Your task to perform on an android device: turn on data saver in the chrome app Image 0: 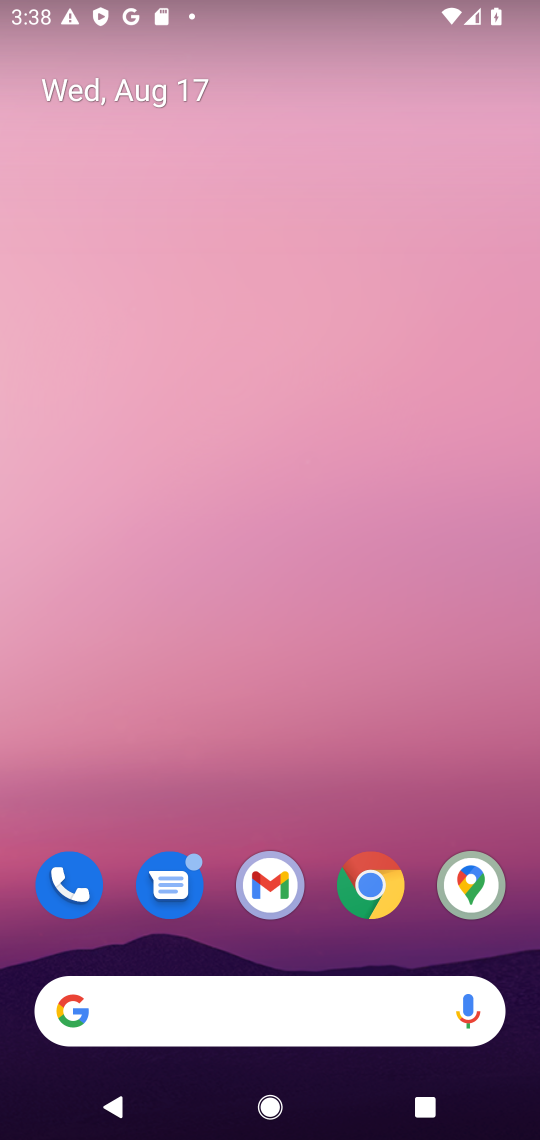
Step 0: click (372, 884)
Your task to perform on an android device: turn on data saver in the chrome app Image 1: 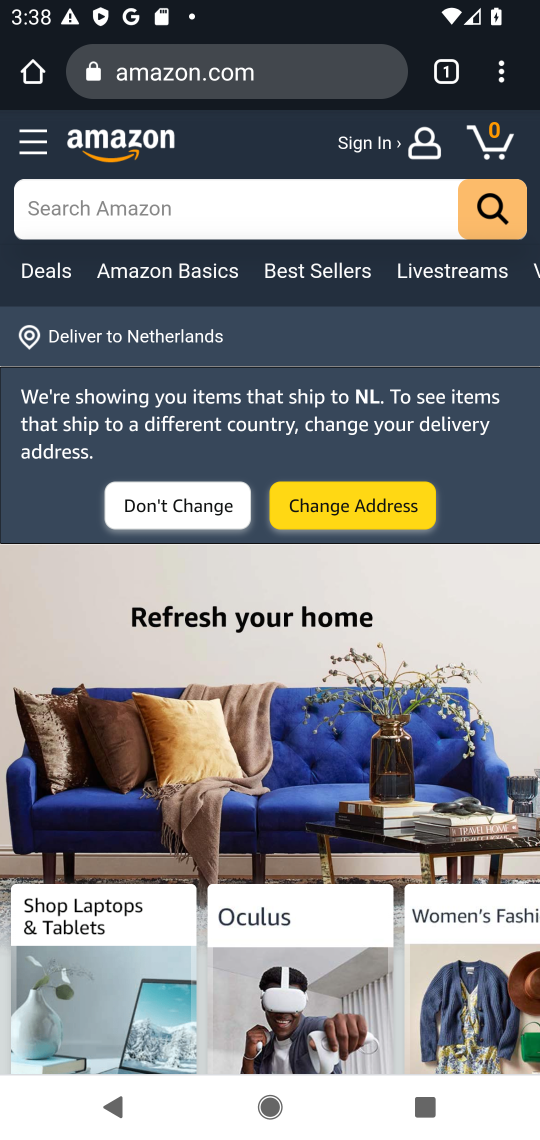
Step 1: click (524, 75)
Your task to perform on an android device: turn on data saver in the chrome app Image 2: 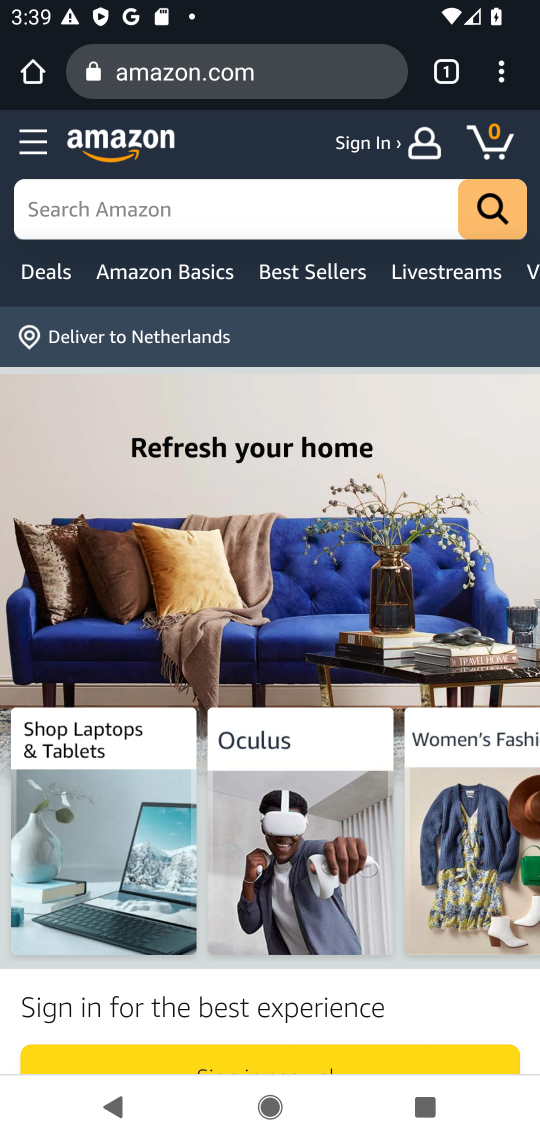
Step 2: drag from (524, 75) to (338, 917)
Your task to perform on an android device: turn on data saver in the chrome app Image 3: 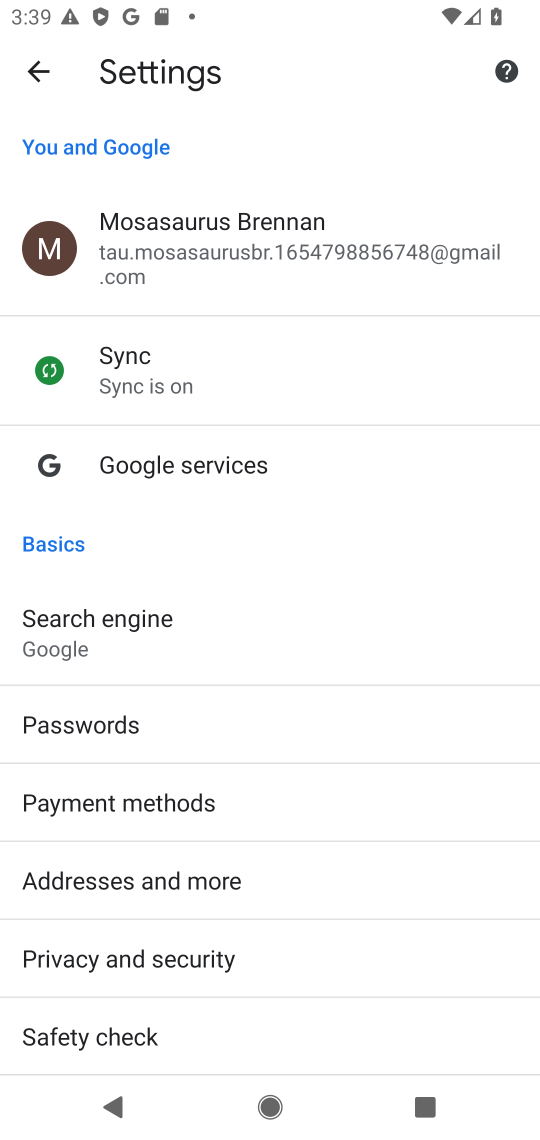
Step 3: drag from (150, 833) to (225, 648)
Your task to perform on an android device: turn on data saver in the chrome app Image 4: 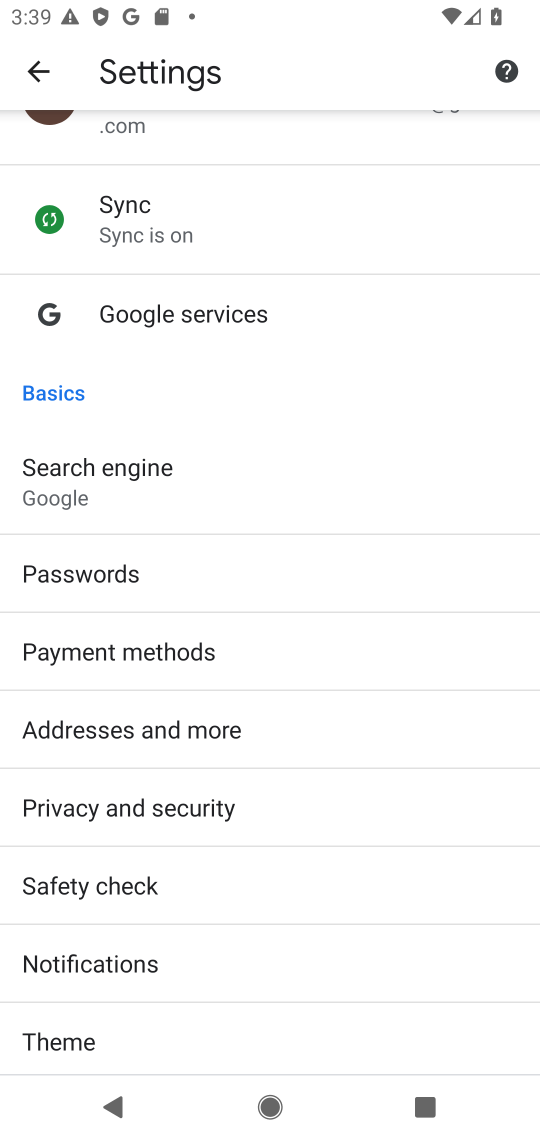
Step 4: drag from (182, 942) to (315, 730)
Your task to perform on an android device: turn on data saver in the chrome app Image 5: 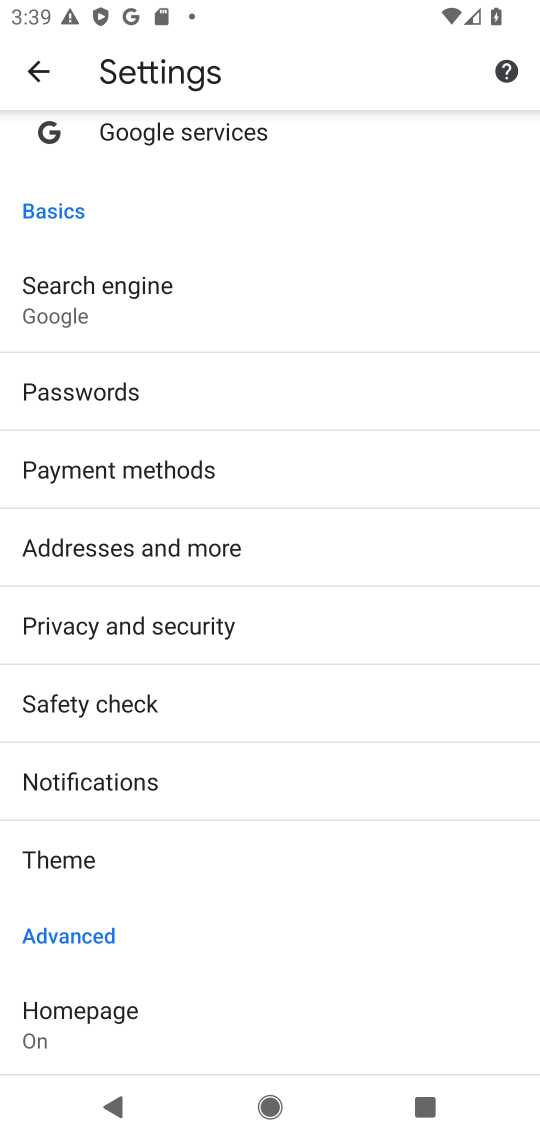
Step 5: drag from (187, 925) to (277, 742)
Your task to perform on an android device: turn on data saver in the chrome app Image 6: 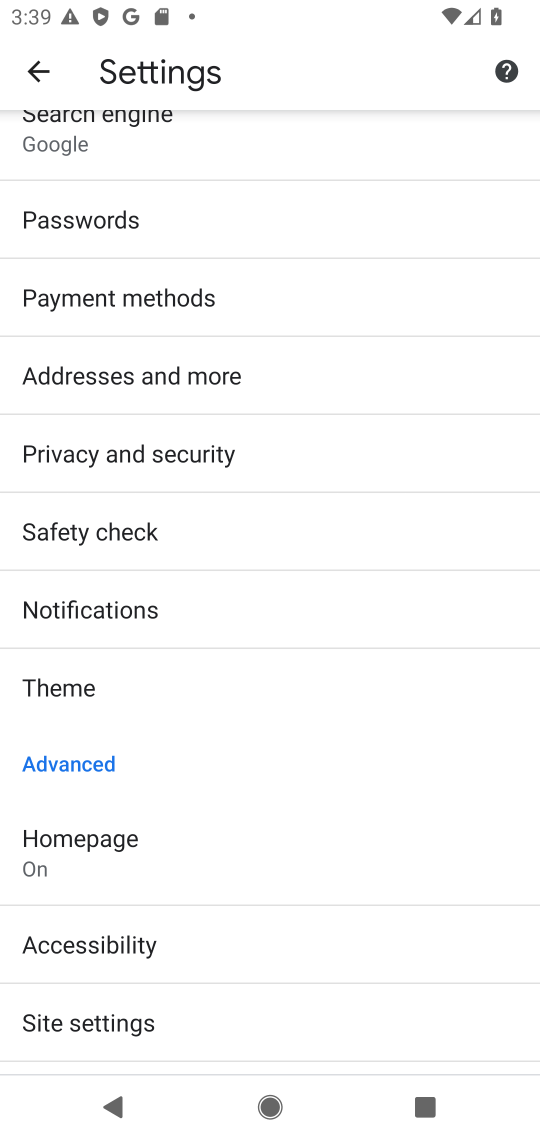
Step 6: drag from (190, 938) to (271, 787)
Your task to perform on an android device: turn on data saver in the chrome app Image 7: 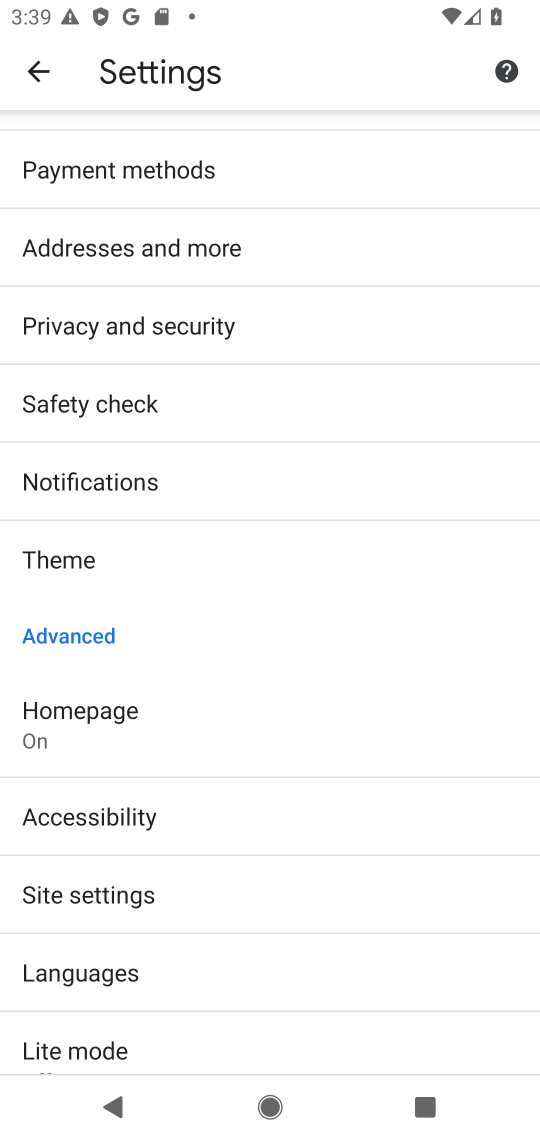
Step 7: click (282, 811)
Your task to perform on an android device: turn on data saver in the chrome app Image 8: 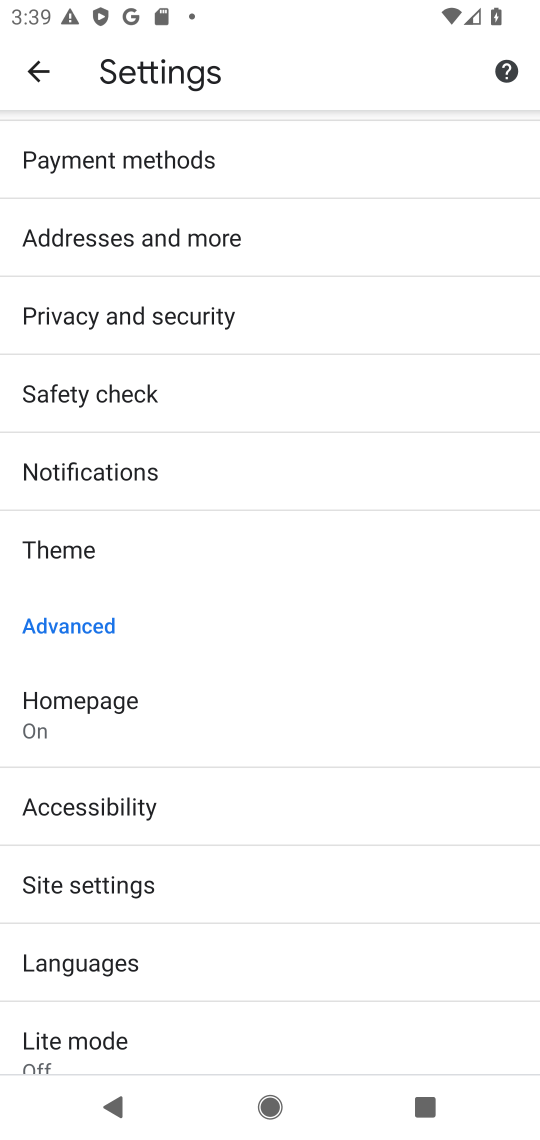
Step 8: drag from (156, 980) to (267, 780)
Your task to perform on an android device: turn on data saver in the chrome app Image 9: 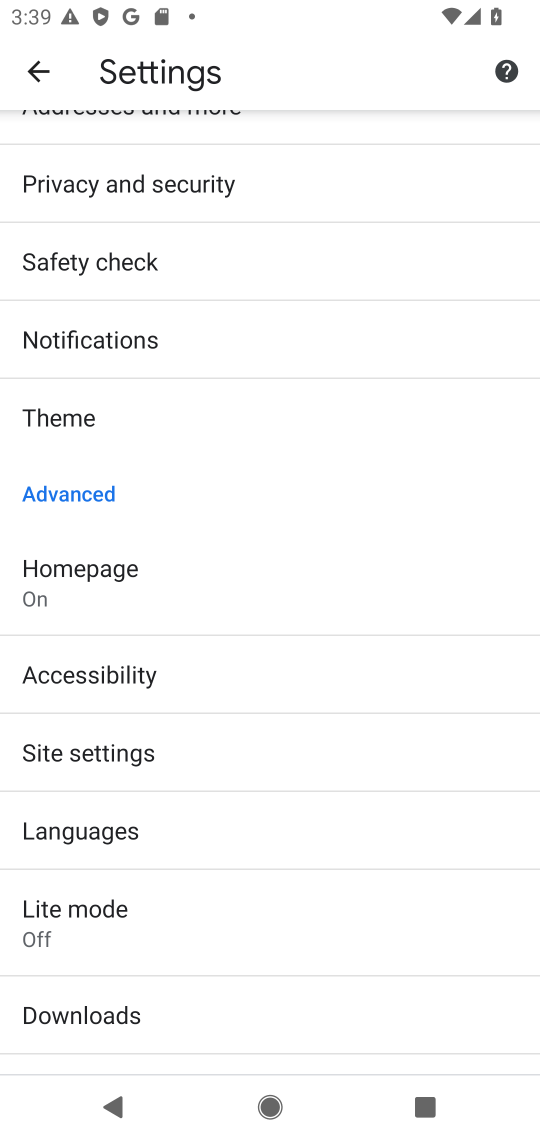
Step 9: click (125, 920)
Your task to perform on an android device: turn on data saver in the chrome app Image 10: 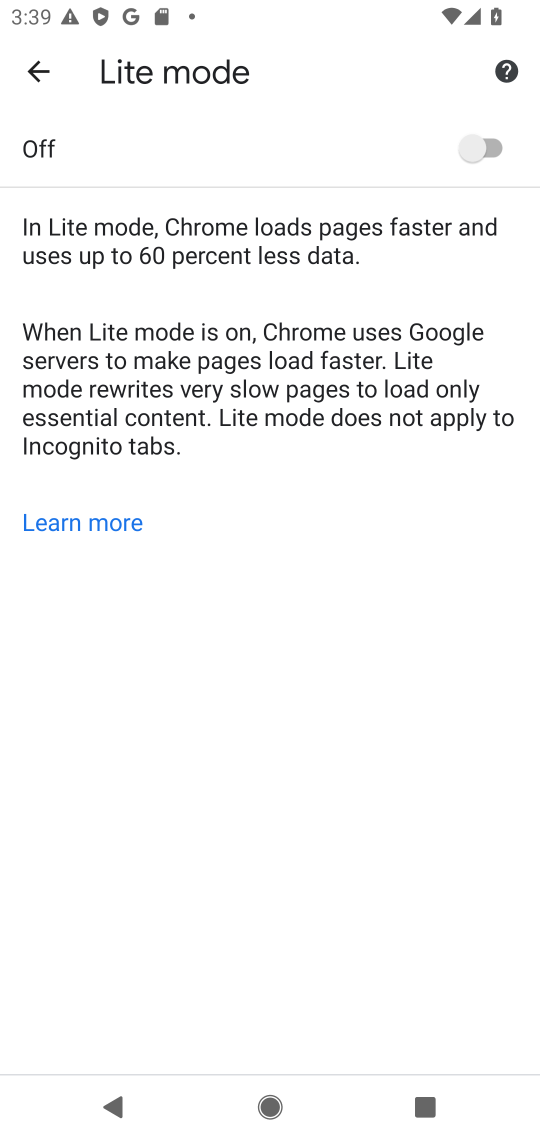
Step 10: click (482, 140)
Your task to perform on an android device: turn on data saver in the chrome app Image 11: 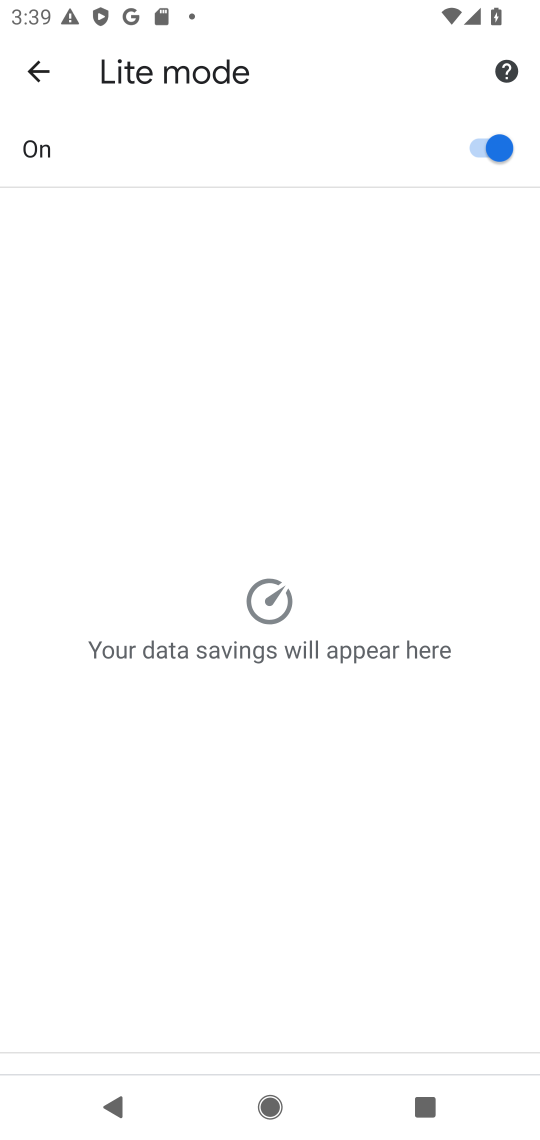
Step 11: task complete